Your task to perform on an android device: Is it going to rain today? Image 0: 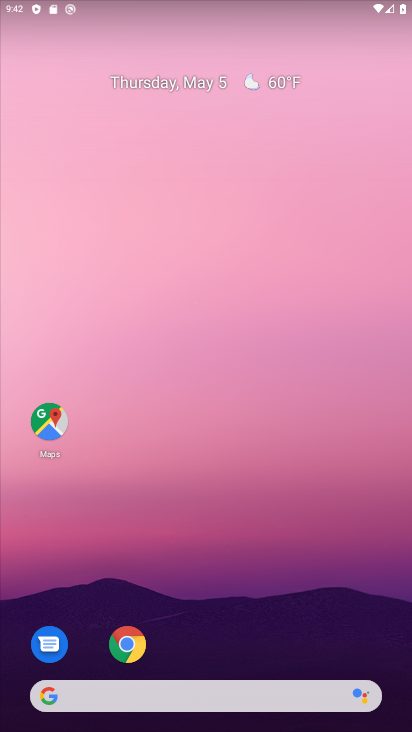
Step 0: drag from (311, 623) to (314, 30)
Your task to perform on an android device: Is it going to rain today? Image 1: 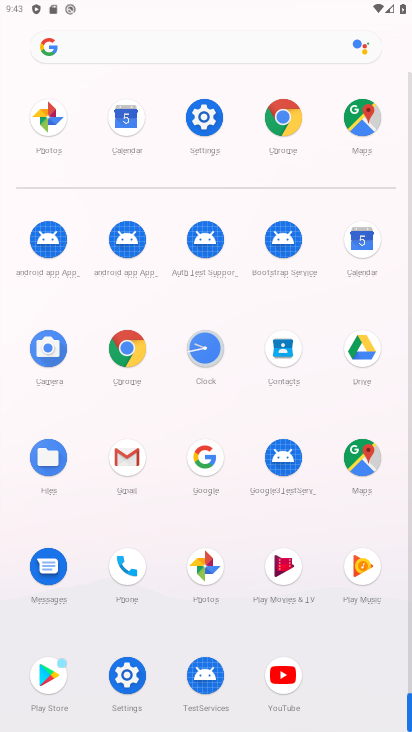
Step 1: click (283, 125)
Your task to perform on an android device: Is it going to rain today? Image 2: 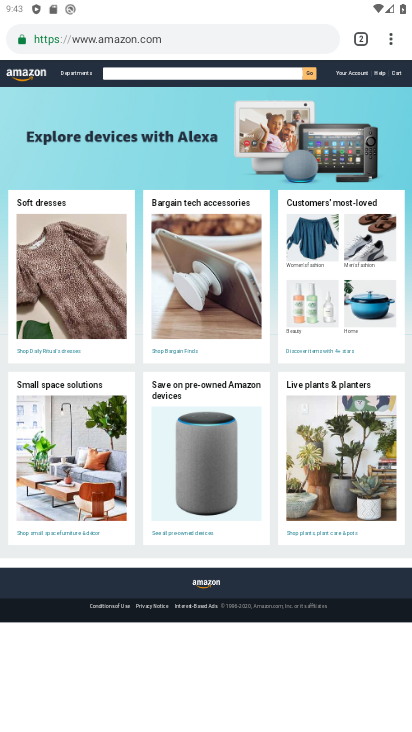
Step 2: click (145, 35)
Your task to perform on an android device: Is it going to rain today? Image 3: 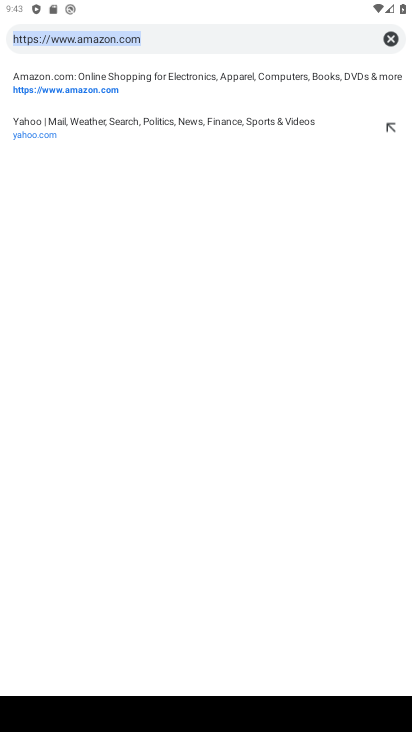
Step 3: click (391, 35)
Your task to perform on an android device: Is it going to rain today? Image 4: 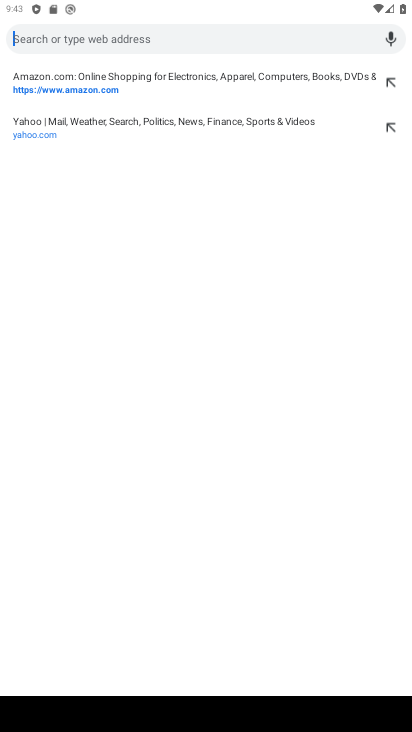
Step 4: type "is it going to rain today"
Your task to perform on an android device: Is it going to rain today? Image 5: 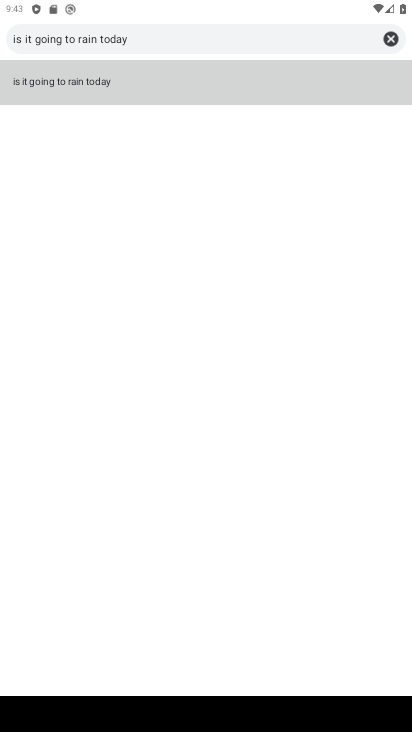
Step 5: click (55, 86)
Your task to perform on an android device: Is it going to rain today? Image 6: 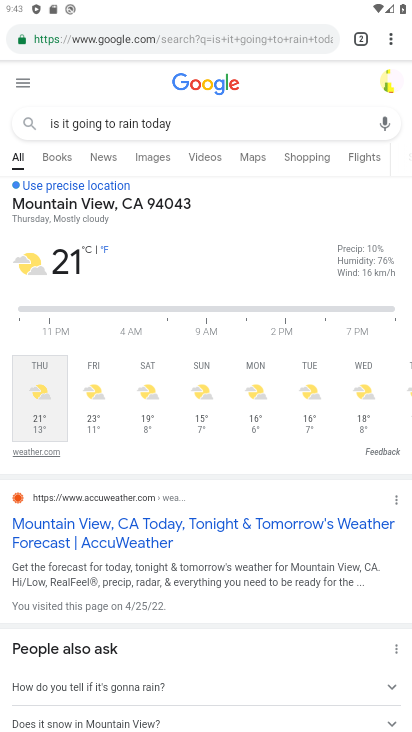
Step 6: task complete